Your task to perform on an android device: Open the Play Movies app and select the watchlist tab. Image 0: 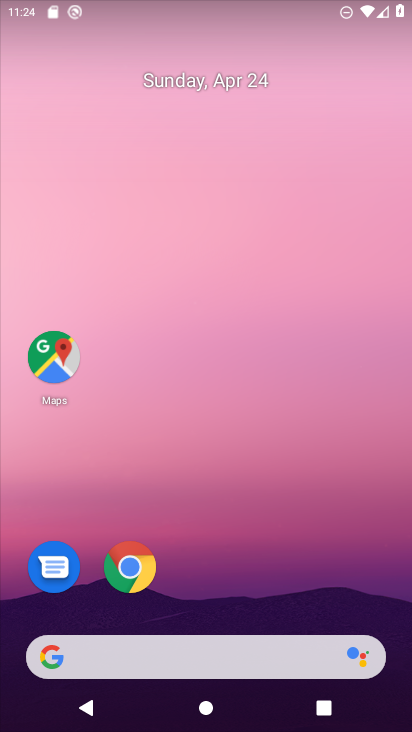
Step 0: drag from (263, 614) to (388, 43)
Your task to perform on an android device: Open the Play Movies app and select the watchlist tab. Image 1: 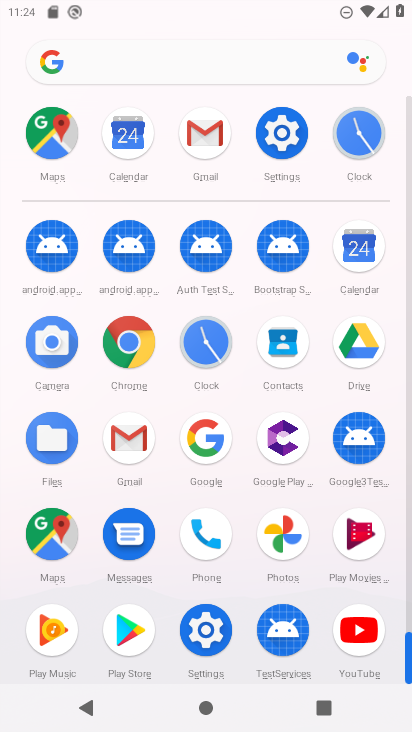
Step 1: click (362, 541)
Your task to perform on an android device: Open the Play Movies app and select the watchlist tab. Image 2: 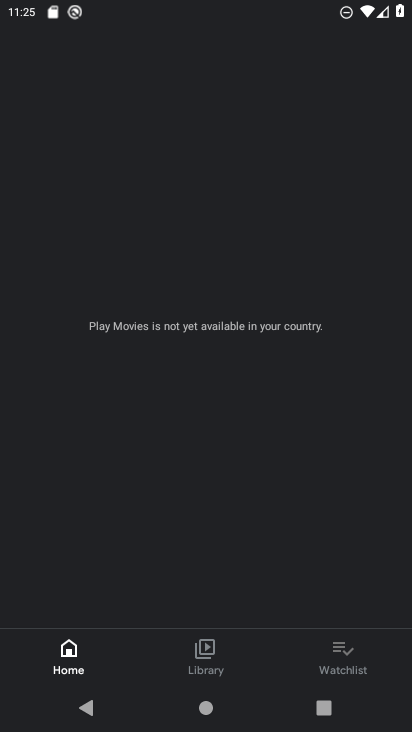
Step 2: task complete